Your task to perform on an android device: Open the Play Movies app and select the watchlist tab. Image 0: 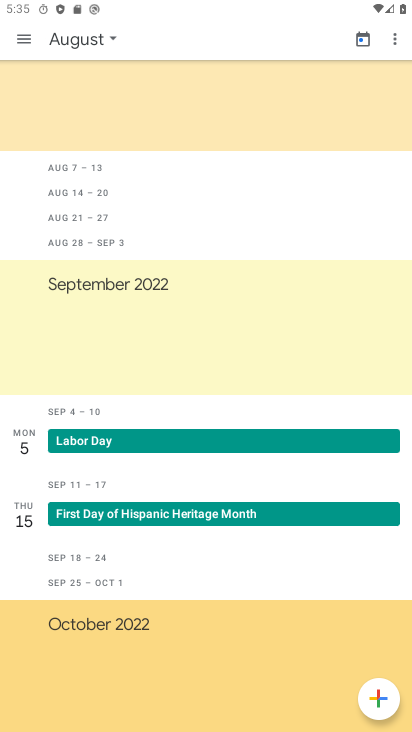
Step 0: press home button
Your task to perform on an android device: Open the Play Movies app and select the watchlist tab. Image 1: 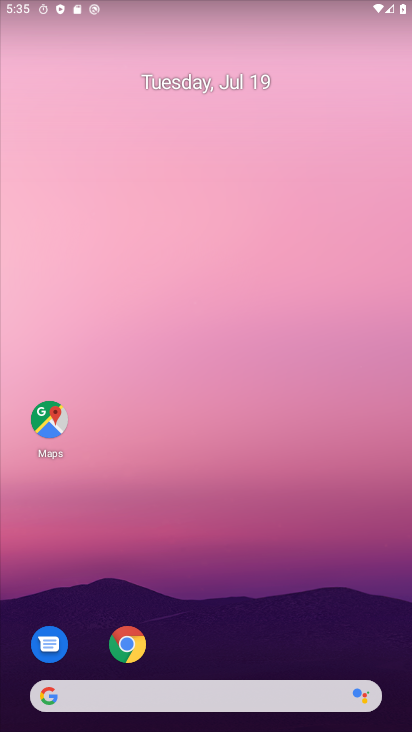
Step 1: drag from (242, 449) to (272, 173)
Your task to perform on an android device: Open the Play Movies app and select the watchlist tab. Image 2: 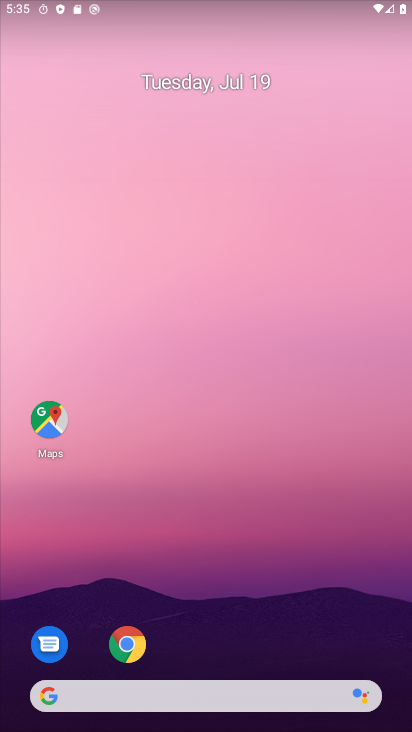
Step 2: drag from (246, 607) to (246, 182)
Your task to perform on an android device: Open the Play Movies app and select the watchlist tab. Image 3: 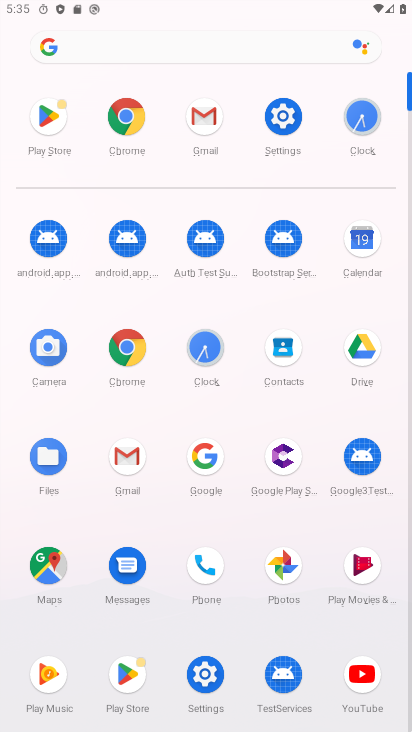
Step 3: click (365, 561)
Your task to perform on an android device: Open the Play Movies app and select the watchlist tab. Image 4: 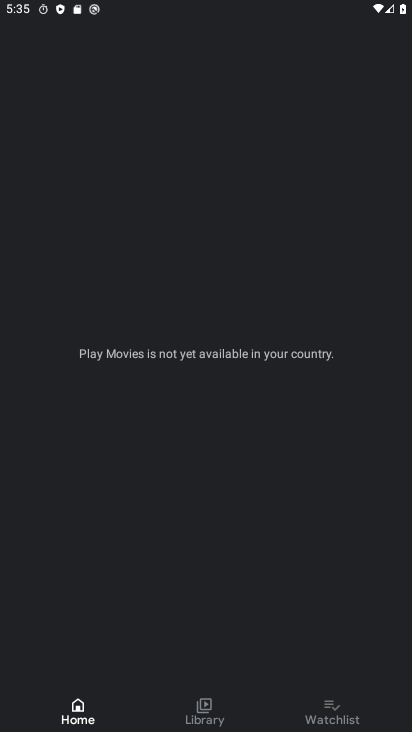
Step 4: click (338, 709)
Your task to perform on an android device: Open the Play Movies app and select the watchlist tab. Image 5: 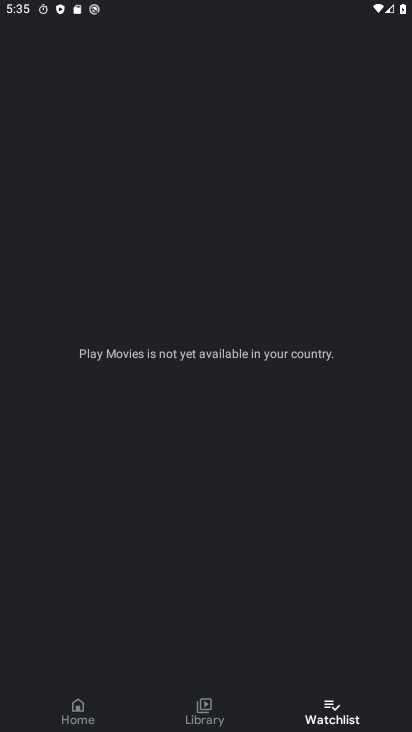
Step 5: task complete